Your task to perform on an android device: toggle wifi Image 0: 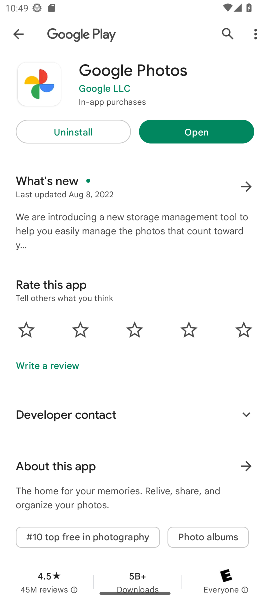
Step 0: click (19, 35)
Your task to perform on an android device: toggle wifi Image 1: 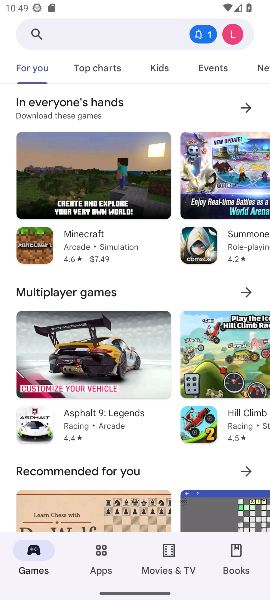
Step 1: press back button
Your task to perform on an android device: toggle wifi Image 2: 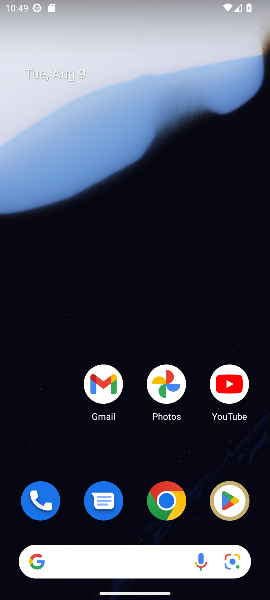
Step 2: drag from (142, 452) to (158, 181)
Your task to perform on an android device: toggle wifi Image 3: 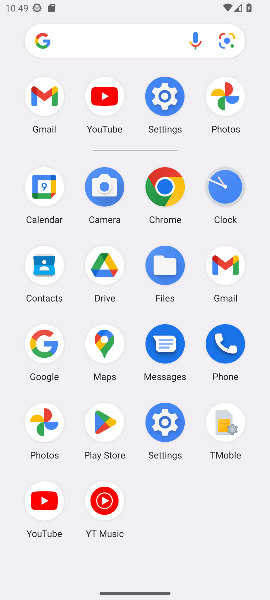
Step 3: click (165, 101)
Your task to perform on an android device: toggle wifi Image 4: 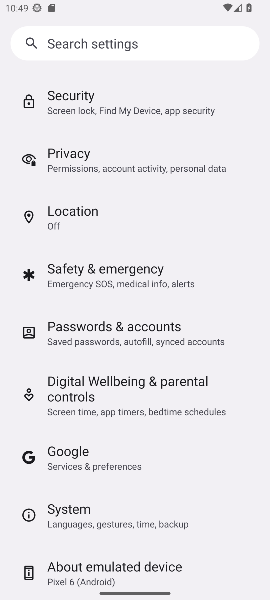
Step 4: drag from (136, 150) to (88, 510)
Your task to perform on an android device: toggle wifi Image 5: 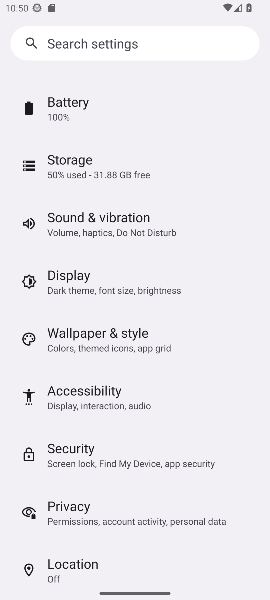
Step 5: drag from (158, 290) to (38, 570)
Your task to perform on an android device: toggle wifi Image 6: 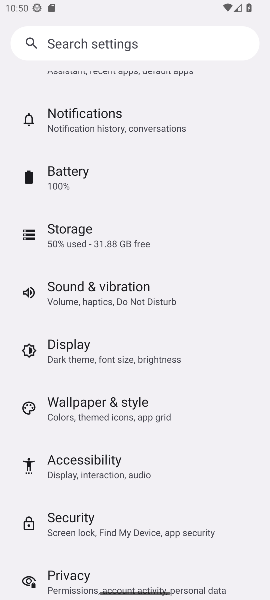
Step 6: drag from (118, 126) to (65, 511)
Your task to perform on an android device: toggle wifi Image 7: 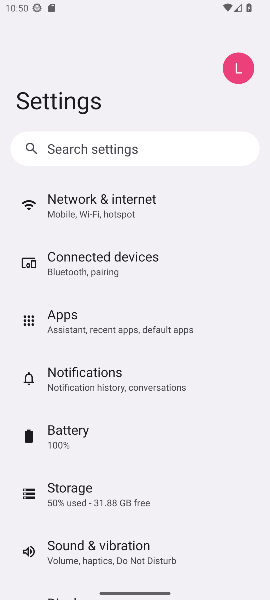
Step 7: click (106, 212)
Your task to perform on an android device: toggle wifi Image 8: 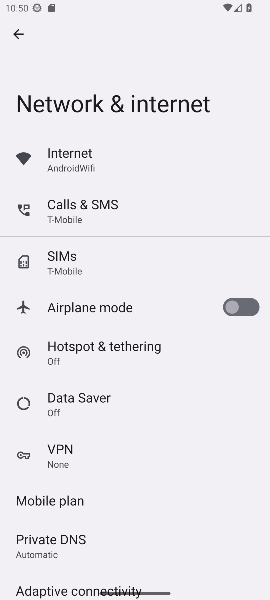
Step 8: click (83, 166)
Your task to perform on an android device: toggle wifi Image 9: 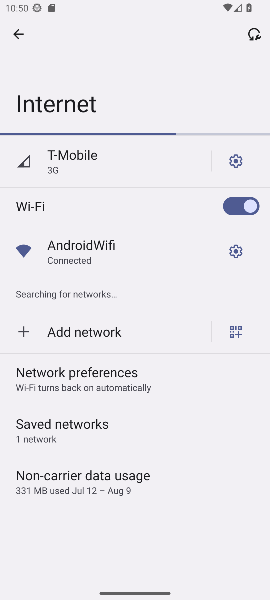
Step 9: task complete